Your task to perform on an android device: Open location settings Image 0: 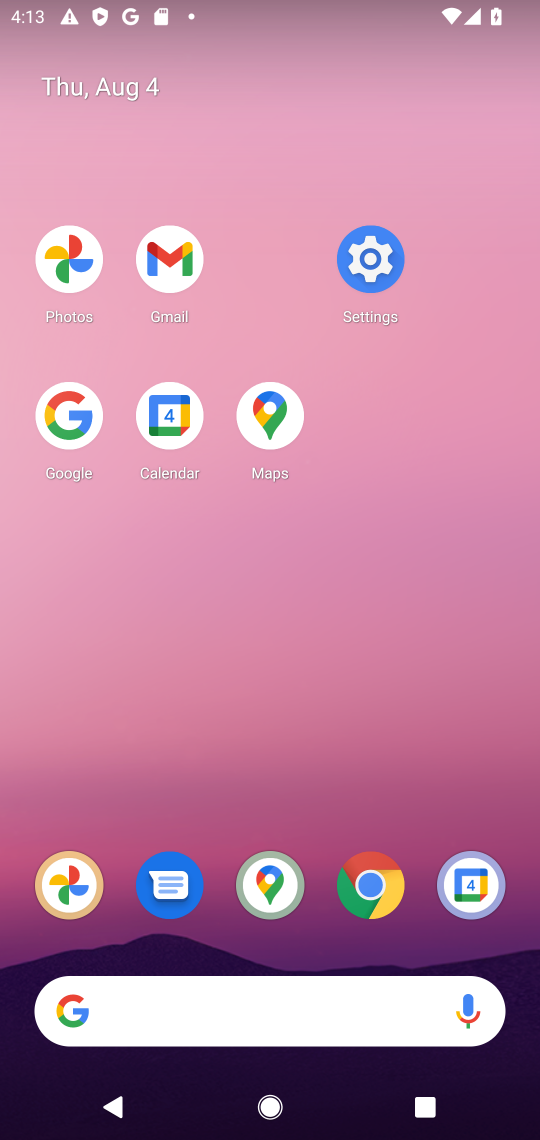
Step 0: click (380, 274)
Your task to perform on an android device: Open location settings Image 1: 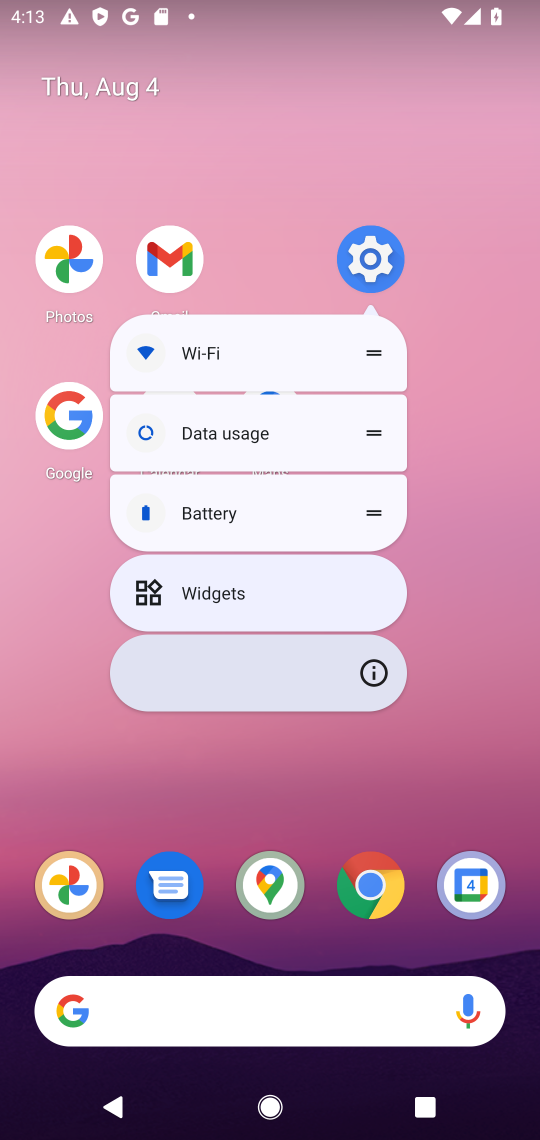
Step 1: click (378, 252)
Your task to perform on an android device: Open location settings Image 2: 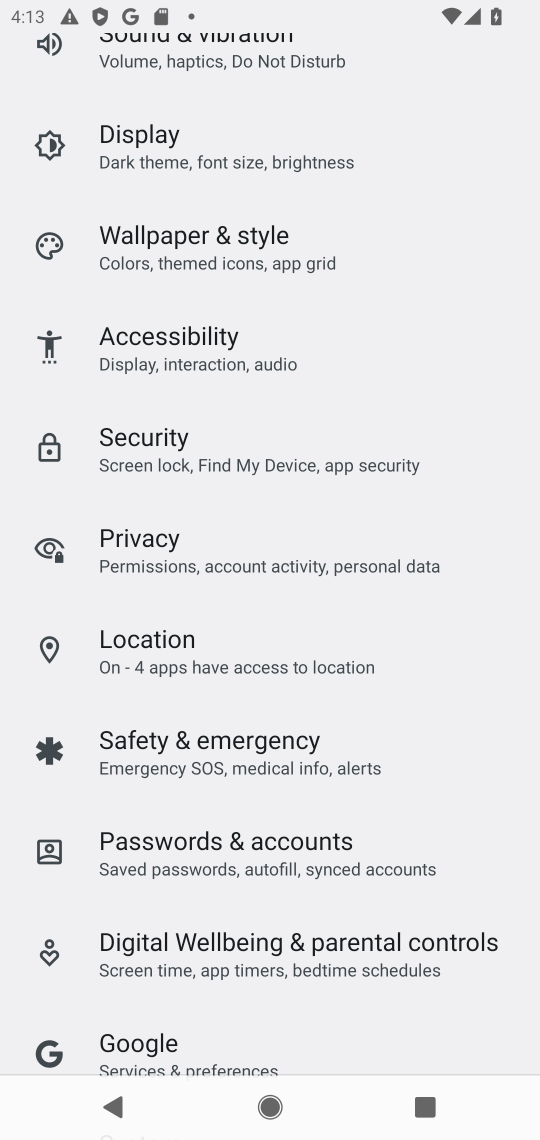
Step 2: click (267, 661)
Your task to perform on an android device: Open location settings Image 3: 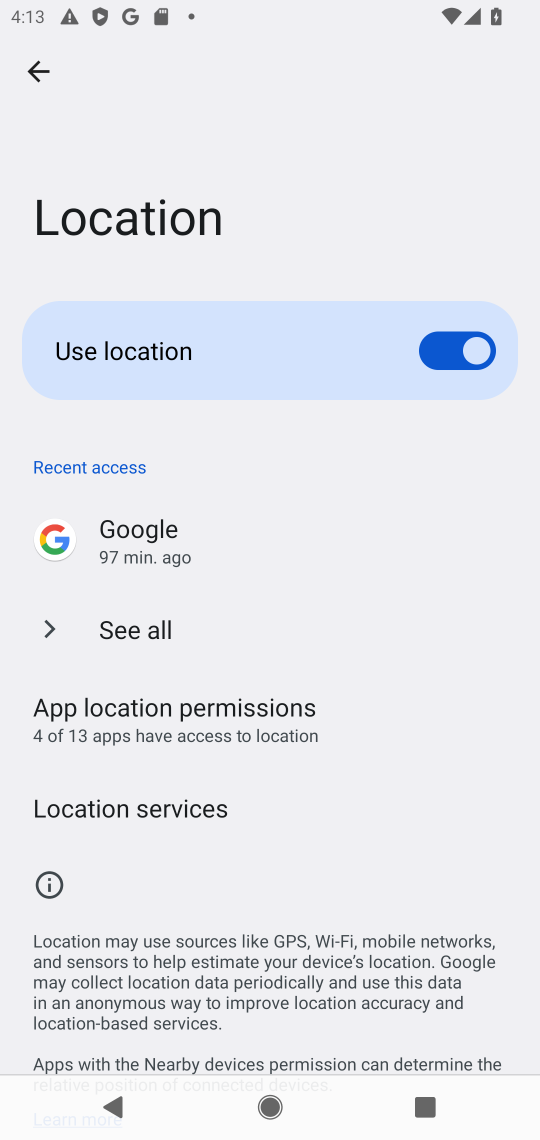
Step 3: task complete